Your task to perform on an android device: Do I have any events this weekend? Image 0: 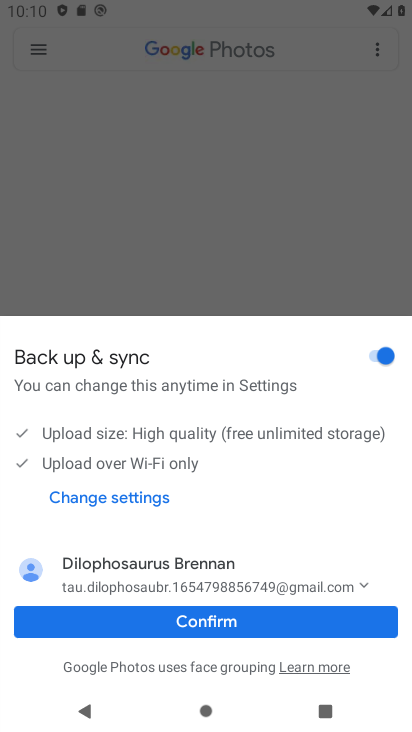
Step 0: press back button
Your task to perform on an android device: Do I have any events this weekend? Image 1: 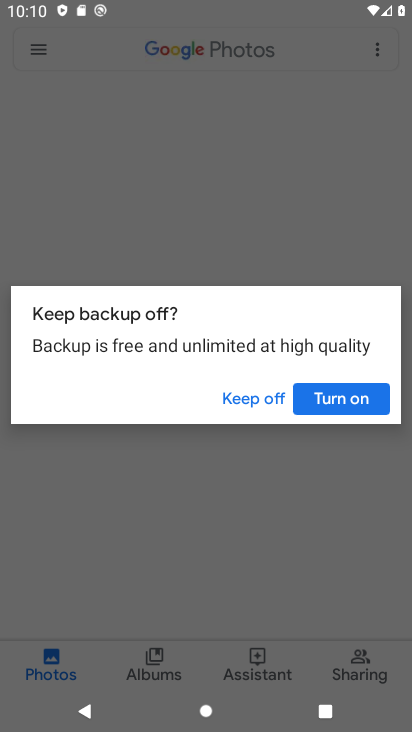
Step 1: press home button
Your task to perform on an android device: Do I have any events this weekend? Image 2: 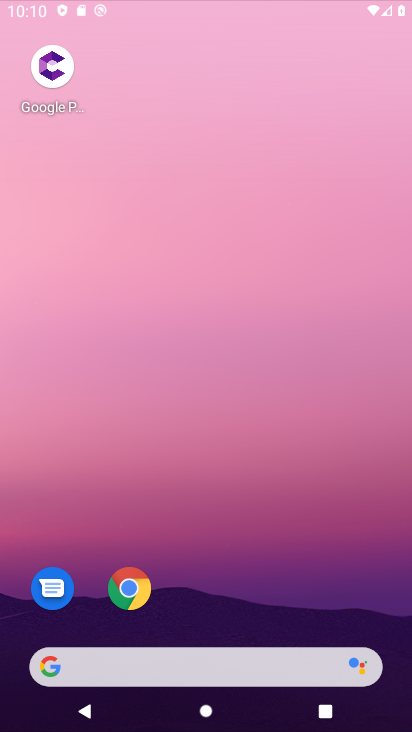
Step 2: drag from (381, 594) to (228, 83)
Your task to perform on an android device: Do I have any events this weekend? Image 3: 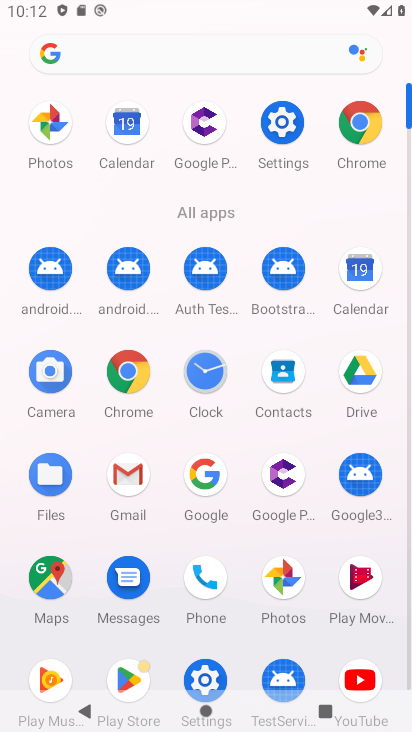
Step 3: click (371, 262)
Your task to perform on an android device: Do I have any events this weekend? Image 4: 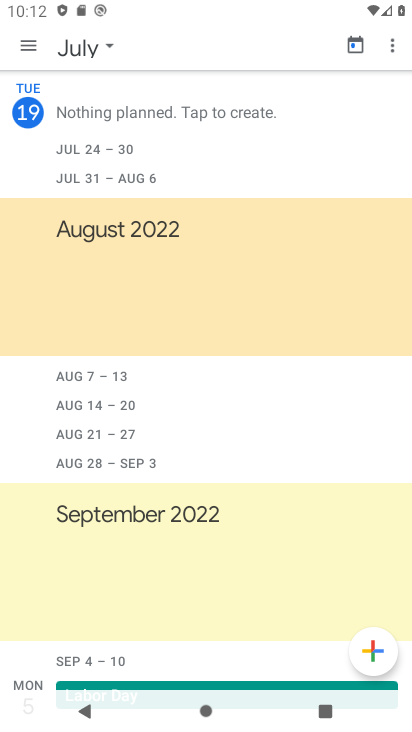
Step 4: task complete